Your task to perform on an android device: Turn on the flashlight Image 0: 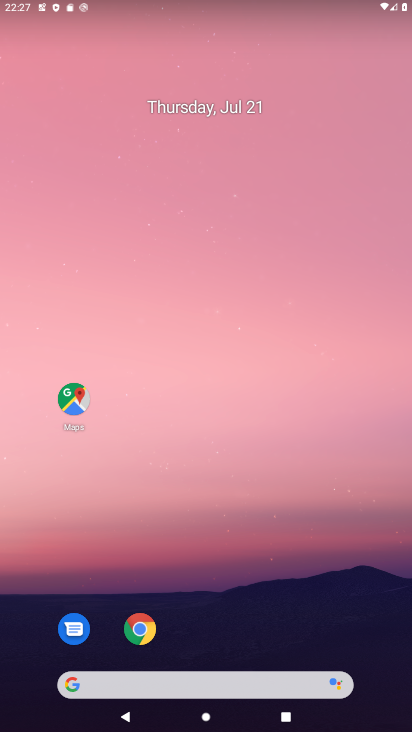
Step 0: drag from (285, 4) to (299, 355)
Your task to perform on an android device: Turn on the flashlight Image 1: 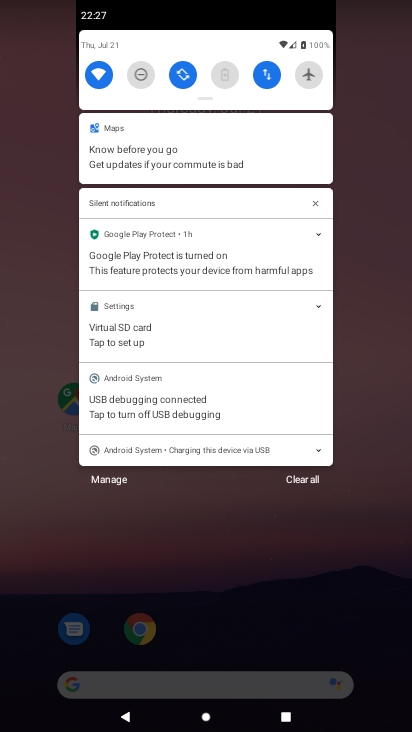
Step 1: task complete